Your task to perform on an android device: toggle improve location accuracy Image 0: 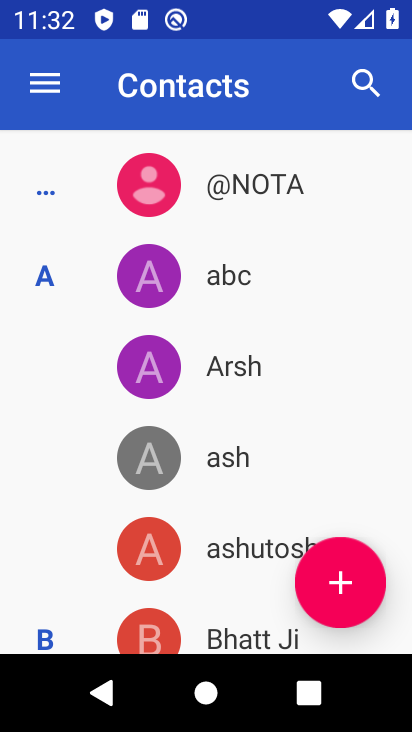
Step 0: press home button
Your task to perform on an android device: toggle improve location accuracy Image 1: 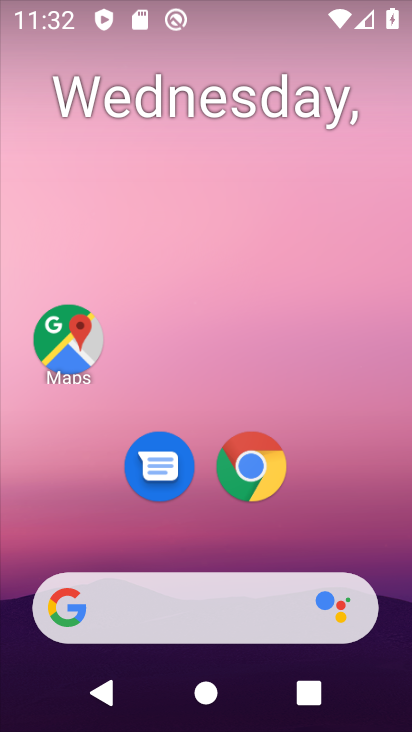
Step 1: drag from (195, 518) to (231, 180)
Your task to perform on an android device: toggle improve location accuracy Image 2: 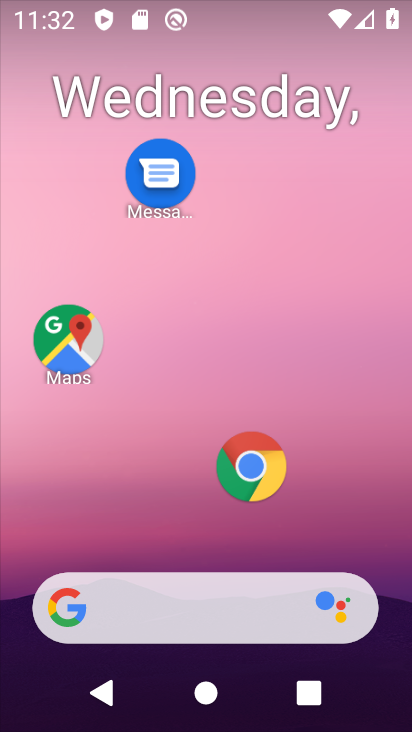
Step 2: click (272, 42)
Your task to perform on an android device: toggle improve location accuracy Image 3: 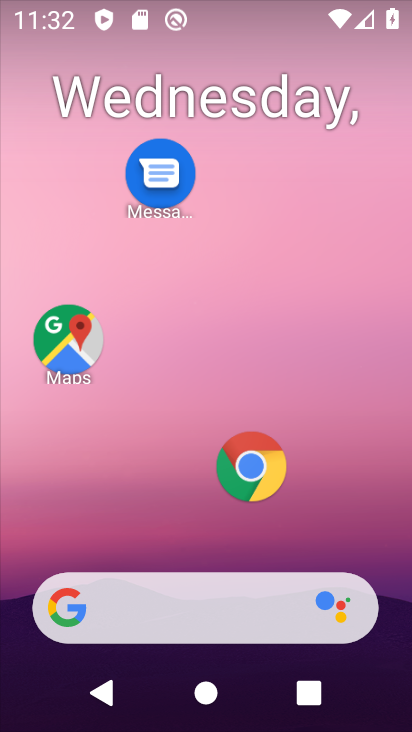
Step 3: drag from (202, 536) to (266, 64)
Your task to perform on an android device: toggle improve location accuracy Image 4: 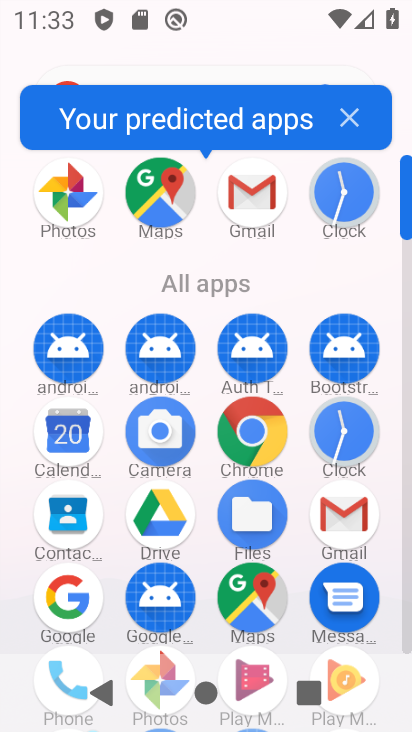
Step 4: drag from (205, 450) to (217, 160)
Your task to perform on an android device: toggle improve location accuracy Image 5: 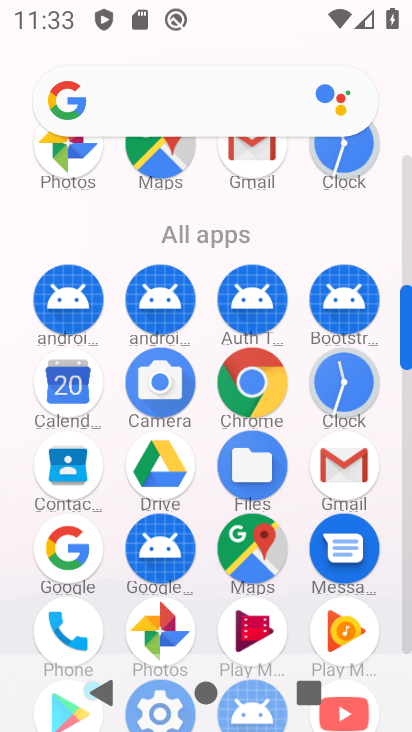
Step 5: click (200, 277)
Your task to perform on an android device: toggle improve location accuracy Image 6: 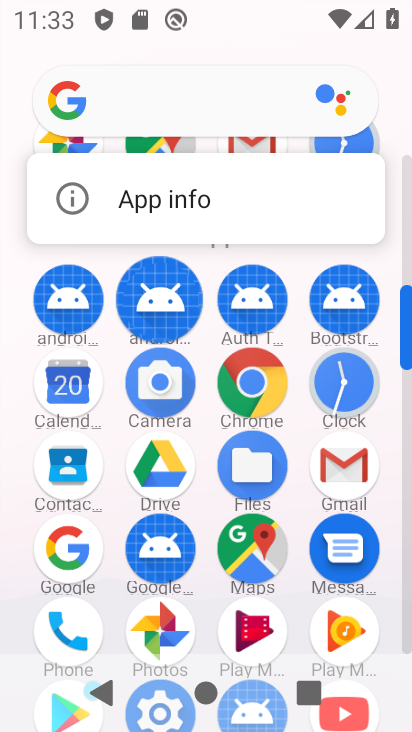
Step 6: click (200, 257)
Your task to perform on an android device: toggle improve location accuracy Image 7: 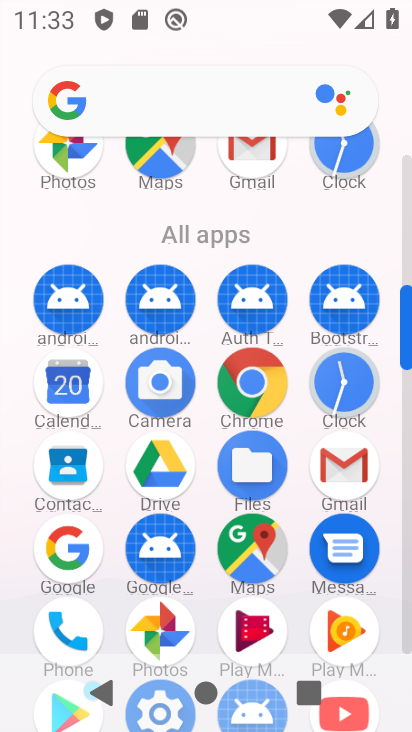
Step 7: drag from (202, 447) to (213, 214)
Your task to perform on an android device: toggle improve location accuracy Image 8: 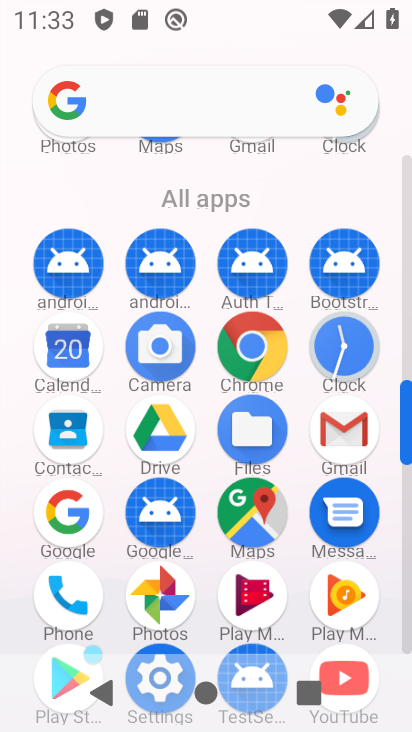
Step 8: click (165, 645)
Your task to perform on an android device: toggle improve location accuracy Image 9: 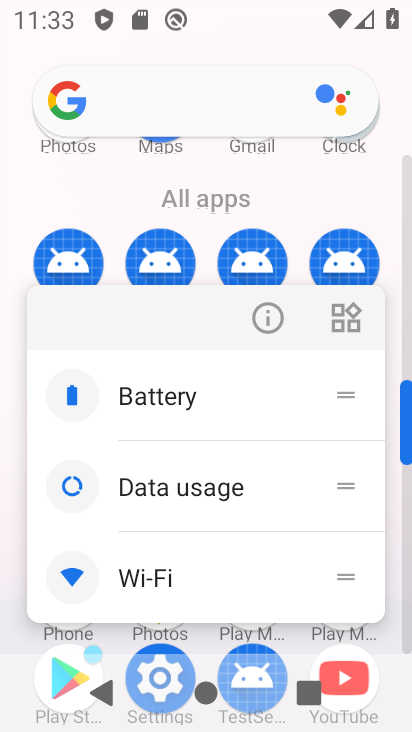
Step 9: click (162, 654)
Your task to perform on an android device: toggle improve location accuracy Image 10: 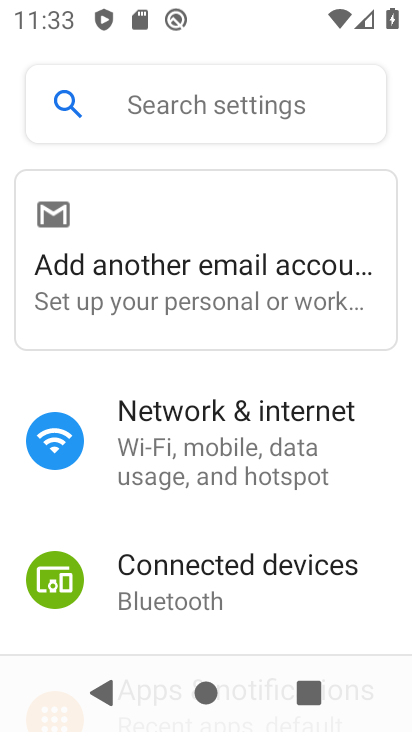
Step 10: drag from (219, 556) to (219, 236)
Your task to perform on an android device: toggle improve location accuracy Image 11: 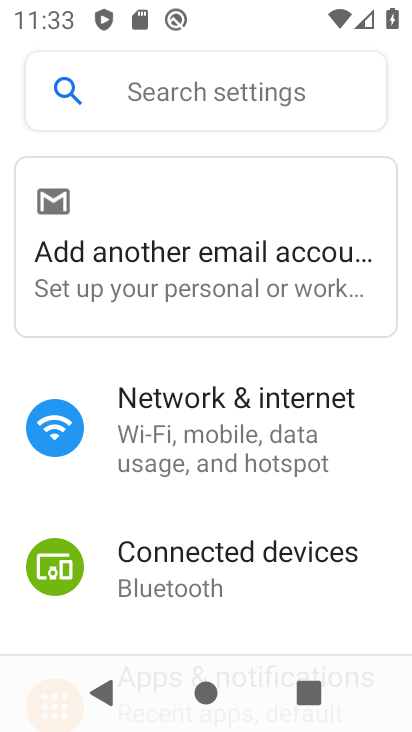
Step 11: drag from (206, 546) to (214, 170)
Your task to perform on an android device: toggle improve location accuracy Image 12: 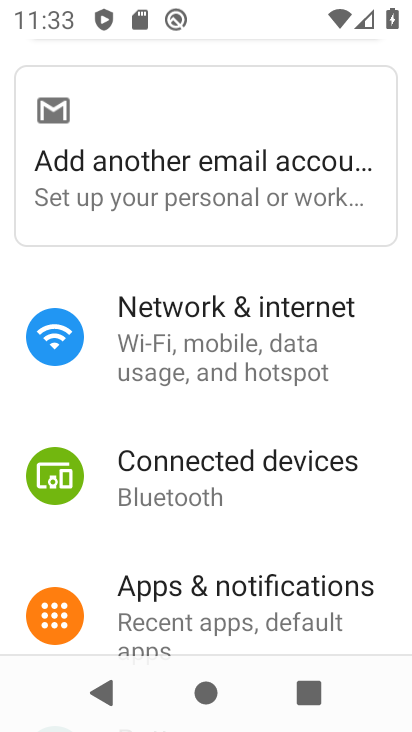
Step 12: drag from (229, 536) to (249, 151)
Your task to perform on an android device: toggle improve location accuracy Image 13: 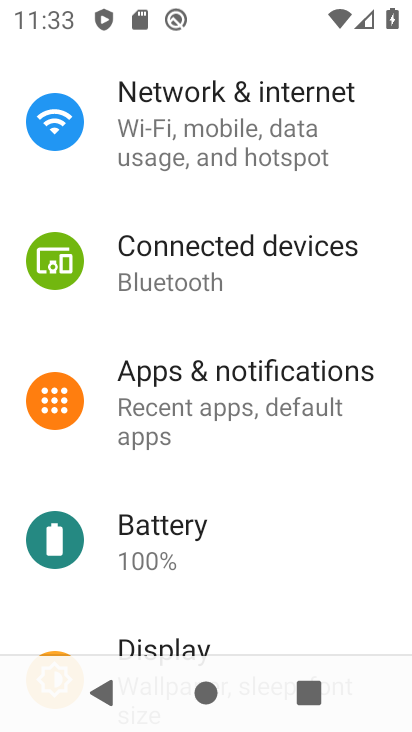
Step 13: drag from (271, 633) to (271, 179)
Your task to perform on an android device: toggle improve location accuracy Image 14: 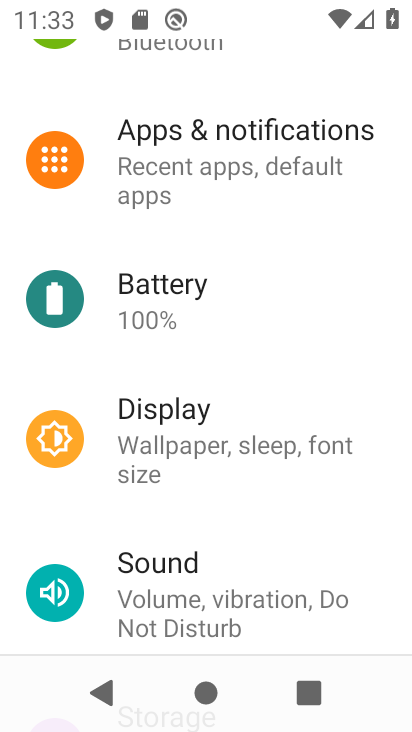
Step 14: drag from (264, 230) to (264, 191)
Your task to perform on an android device: toggle improve location accuracy Image 15: 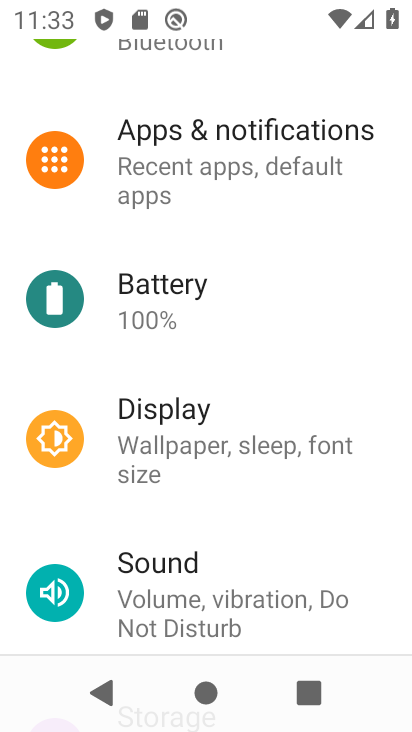
Step 15: drag from (264, 253) to (264, 191)
Your task to perform on an android device: toggle improve location accuracy Image 16: 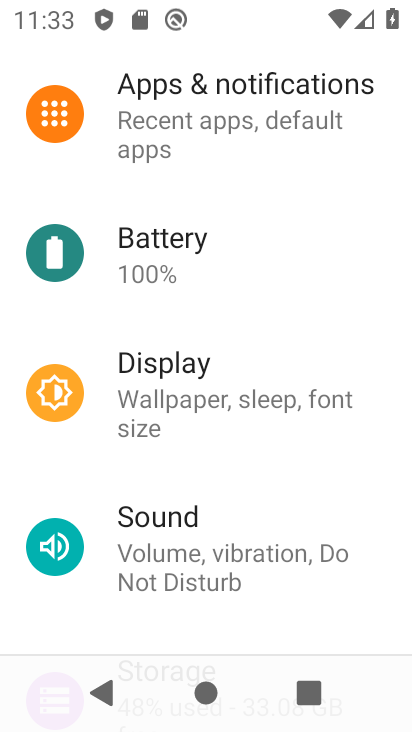
Step 16: drag from (267, 394) to (269, 300)
Your task to perform on an android device: toggle improve location accuracy Image 17: 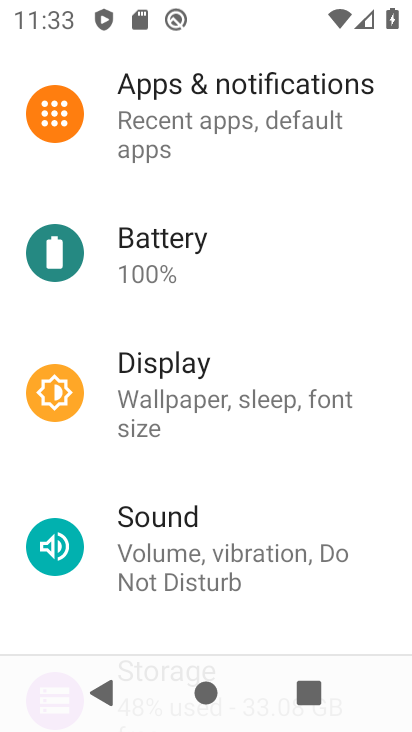
Step 17: drag from (270, 582) to (268, 289)
Your task to perform on an android device: toggle improve location accuracy Image 18: 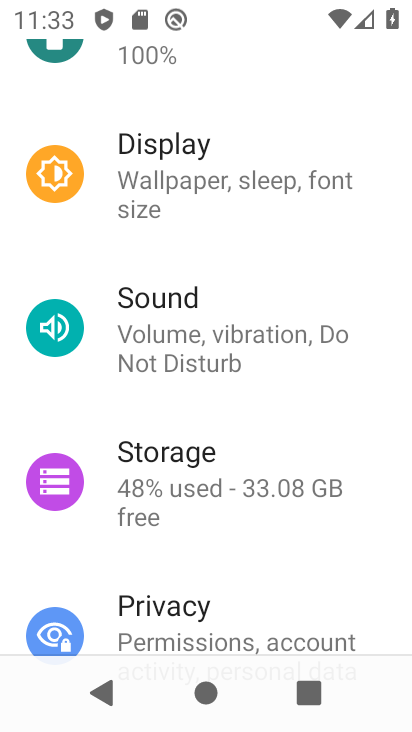
Step 18: drag from (220, 612) to (237, 315)
Your task to perform on an android device: toggle improve location accuracy Image 19: 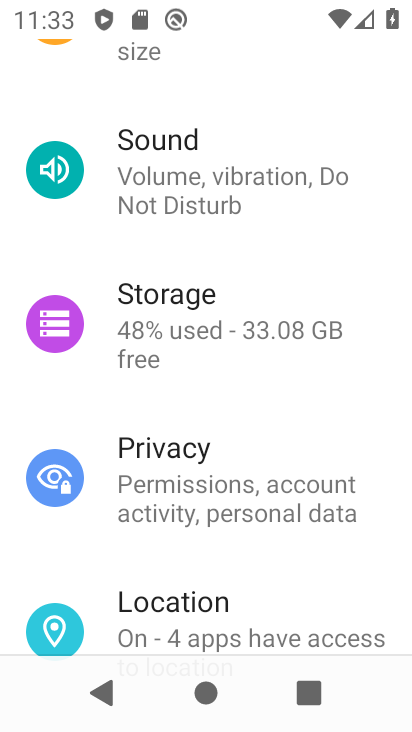
Step 19: click (223, 605)
Your task to perform on an android device: toggle improve location accuracy Image 20: 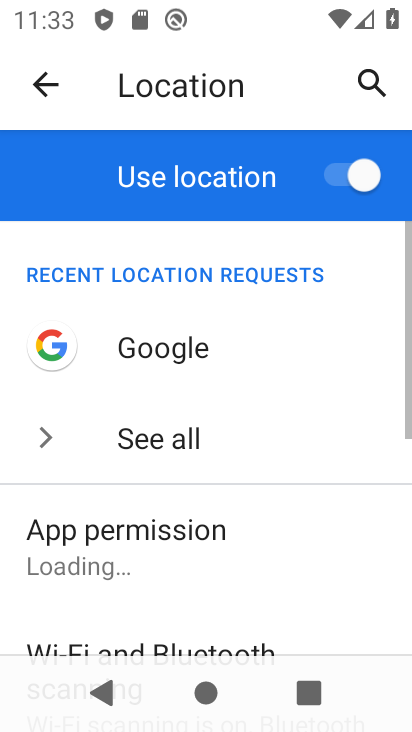
Step 20: click (270, 261)
Your task to perform on an android device: toggle improve location accuracy Image 21: 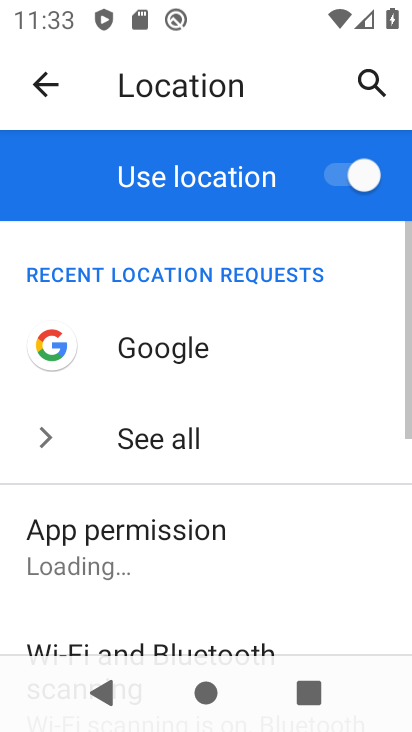
Step 21: drag from (276, 519) to (284, 248)
Your task to perform on an android device: toggle improve location accuracy Image 22: 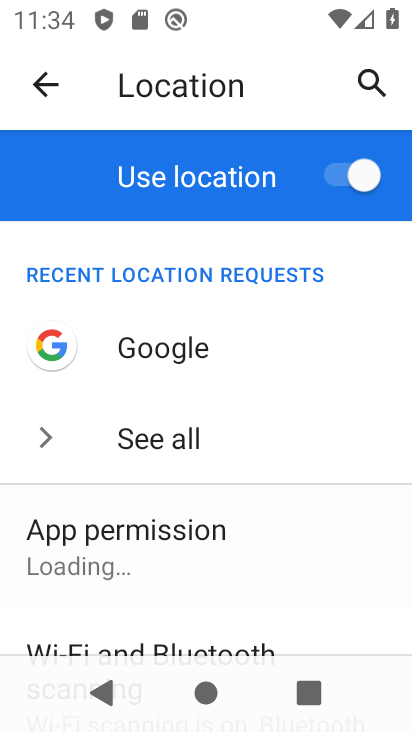
Step 22: drag from (249, 599) to (243, 321)
Your task to perform on an android device: toggle improve location accuracy Image 23: 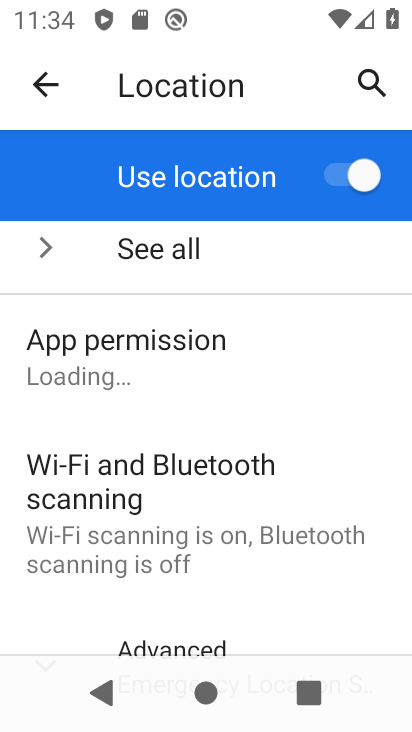
Step 23: drag from (254, 593) to (259, 370)
Your task to perform on an android device: toggle improve location accuracy Image 24: 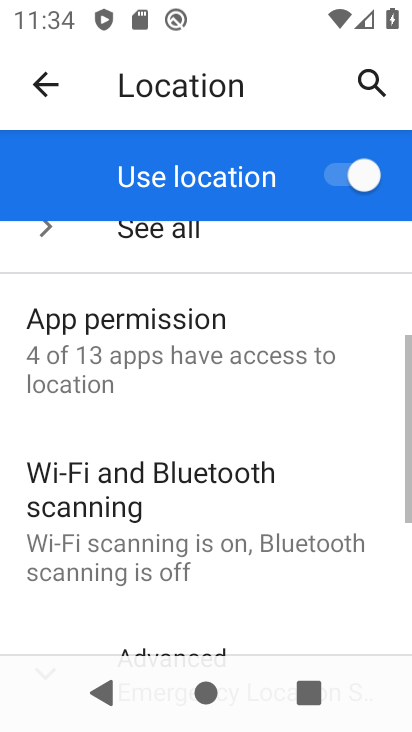
Step 24: click (200, 639)
Your task to perform on an android device: toggle improve location accuracy Image 25: 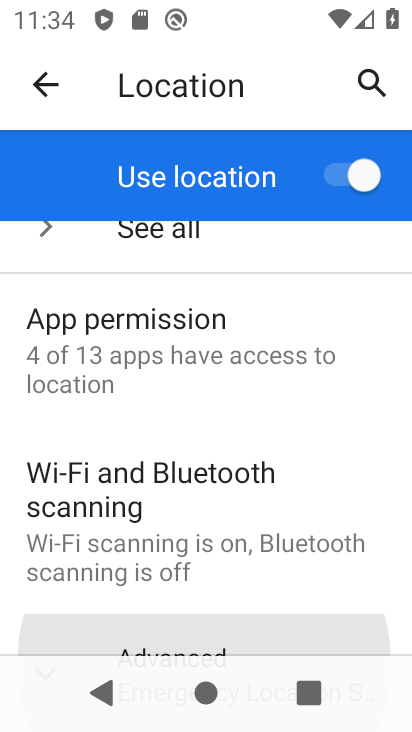
Step 25: drag from (237, 508) to (237, 240)
Your task to perform on an android device: toggle improve location accuracy Image 26: 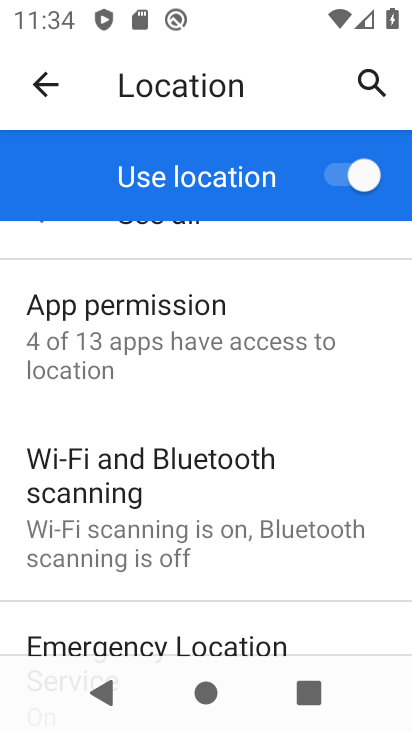
Step 26: drag from (247, 497) to (254, 280)
Your task to perform on an android device: toggle improve location accuracy Image 27: 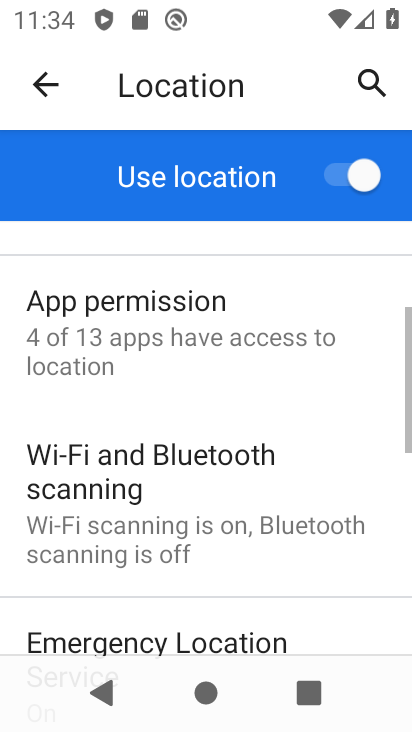
Step 27: drag from (237, 409) to (255, 265)
Your task to perform on an android device: toggle improve location accuracy Image 28: 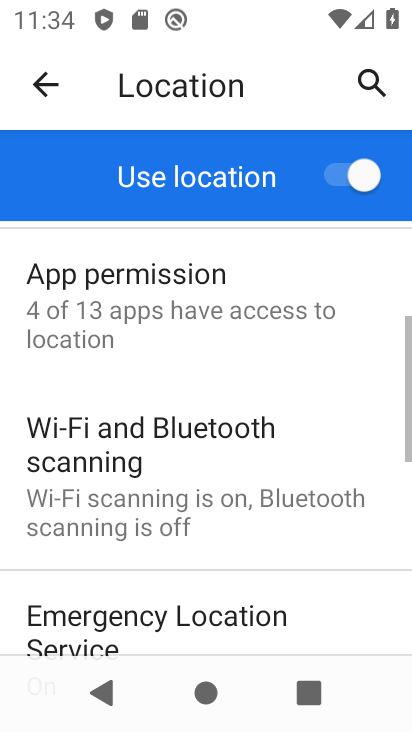
Step 28: drag from (256, 488) to (273, 280)
Your task to perform on an android device: toggle improve location accuracy Image 29: 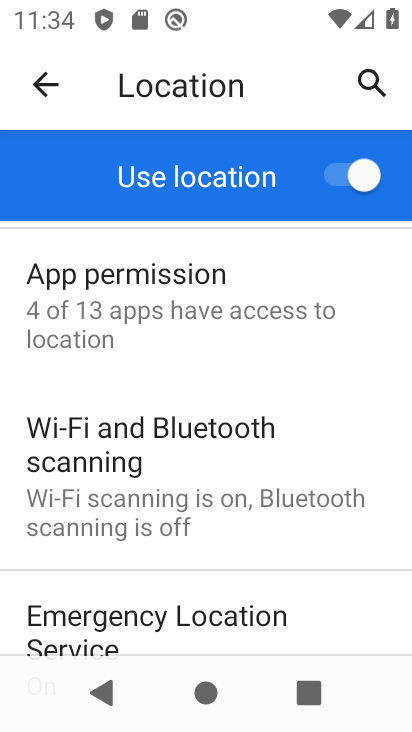
Step 29: drag from (259, 601) to (254, 293)
Your task to perform on an android device: toggle improve location accuracy Image 30: 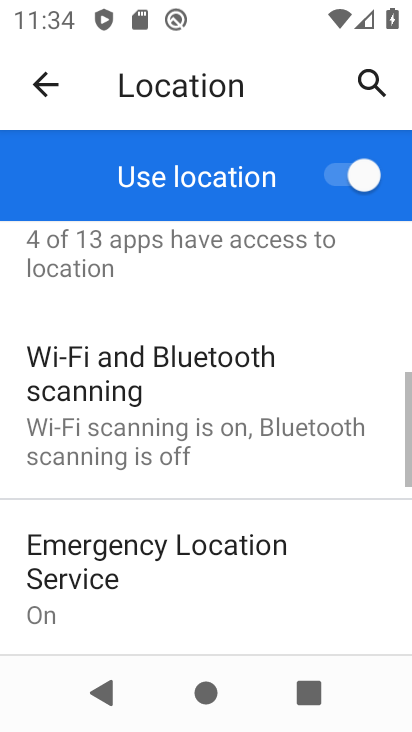
Step 30: drag from (227, 535) to (244, 399)
Your task to perform on an android device: toggle improve location accuracy Image 31: 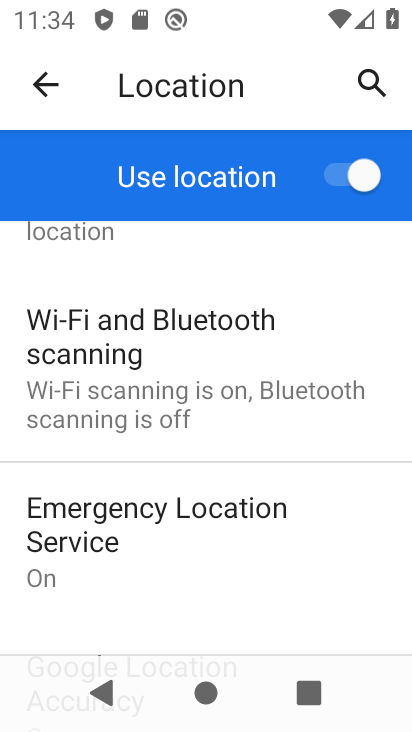
Step 31: drag from (231, 578) to (239, 383)
Your task to perform on an android device: toggle improve location accuracy Image 32: 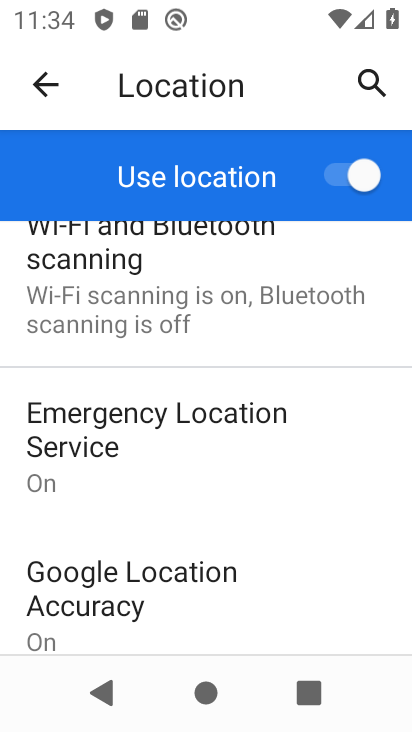
Step 32: click (194, 576)
Your task to perform on an android device: toggle improve location accuracy Image 33: 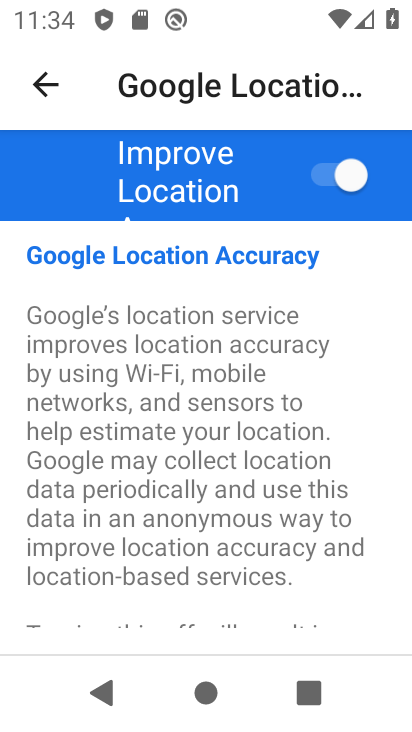
Step 33: click (317, 165)
Your task to perform on an android device: toggle improve location accuracy Image 34: 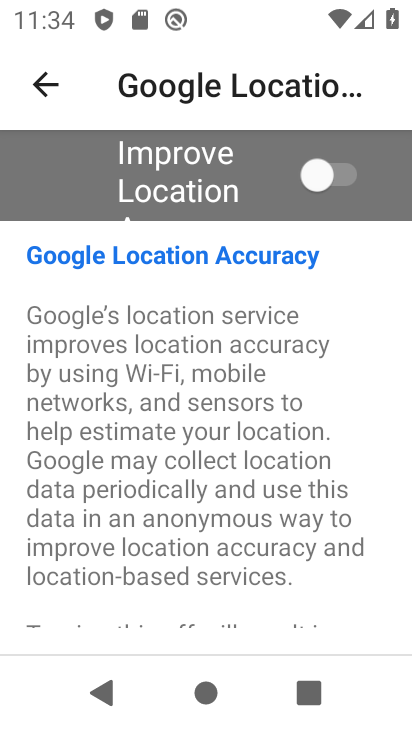
Step 34: task complete